Your task to perform on an android device: add a contact in the contacts app Image 0: 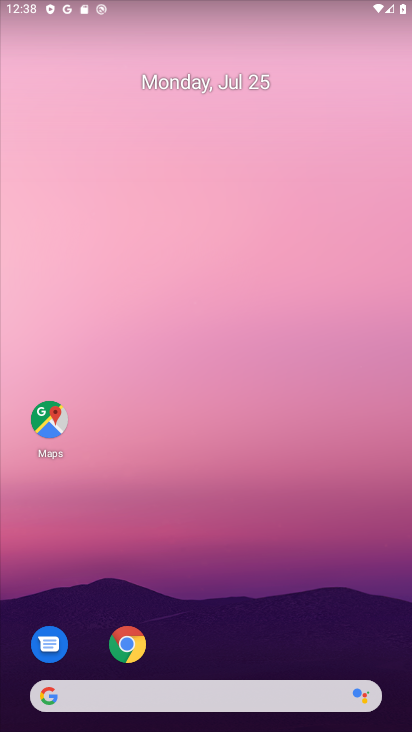
Step 0: drag from (252, 611) to (242, 31)
Your task to perform on an android device: add a contact in the contacts app Image 1: 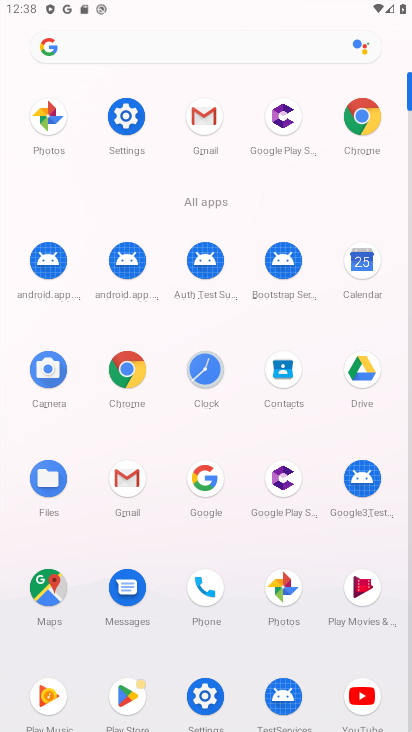
Step 1: click (281, 373)
Your task to perform on an android device: add a contact in the contacts app Image 2: 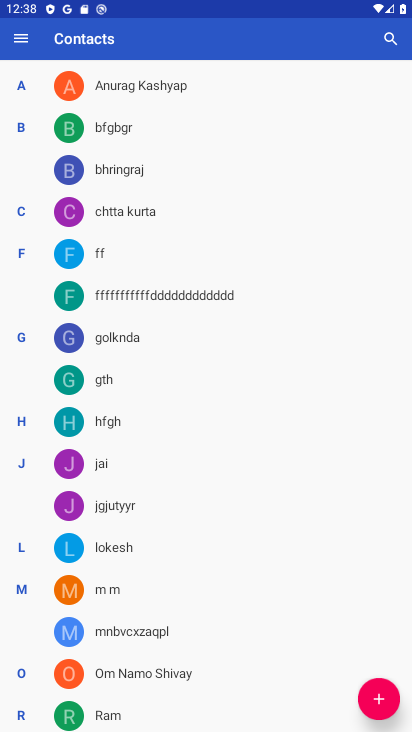
Step 2: click (380, 698)
Your task to perform on an android device: add a contact in the contacts app Image 3: 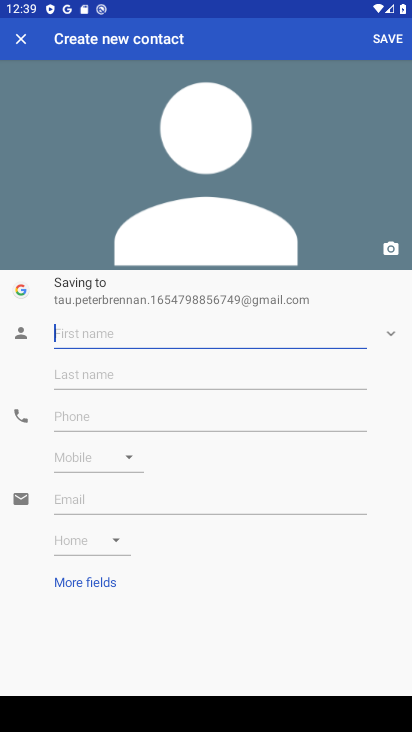
Step 3: type "mnjk"
Your task to perform on an android device: add a contact in the contacts app Image 4: 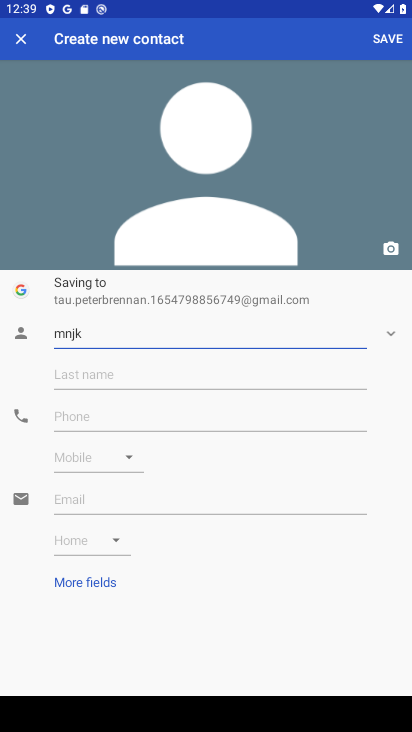
Step 4: click (60, 421)
Your task to perform on an android device: add a contact in the contacts app Image 5: 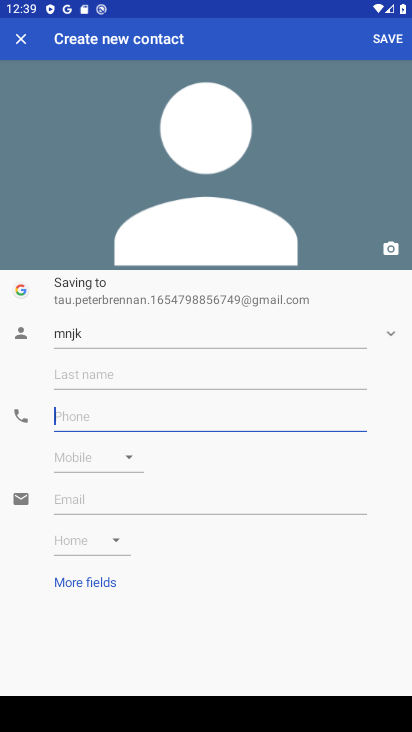
Step 5: type "7890654321"
Your task to perform on an android device: add a contact in the contacts app Image 6: 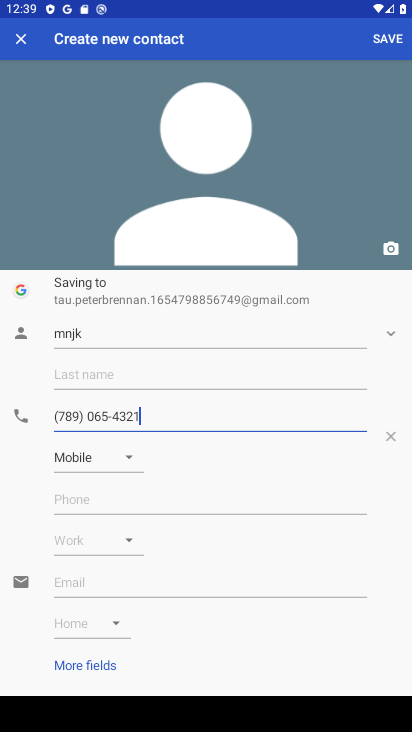
Step 6: click (388, 27)
Your task to perform on an android device: add a contact in the contacts app Image 7: 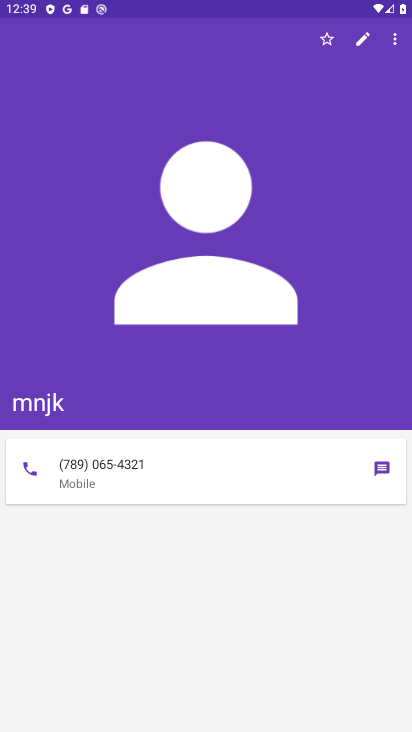
Step 7: task complete